Your task to perform on an android device: Open the Play Movies app and select the watchlist tab. Image 0: 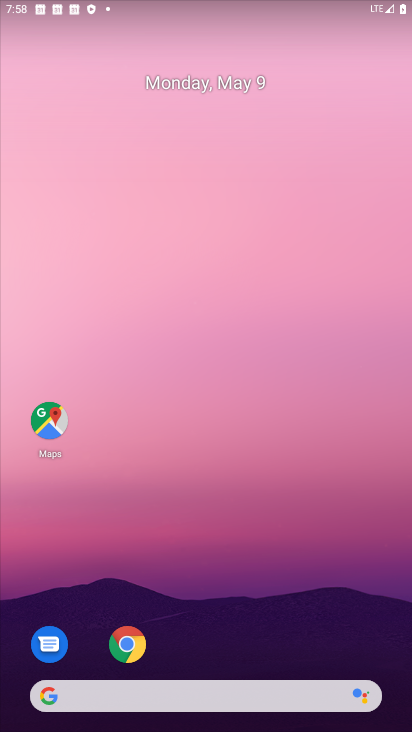
Step 0: drag from (178, 650) to (244, 271)
Your task to perform on an android device: Open the Play Movies app and select the watchlist tab. Image 1: 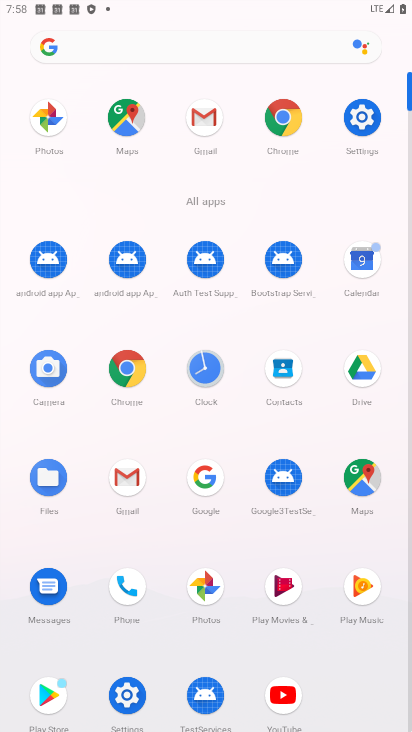
Step 1: drag from (244, 657) to (242, 380)
Your task to perform on an android device: Open the Play Movies app and select the watchlist tab. Image 2: 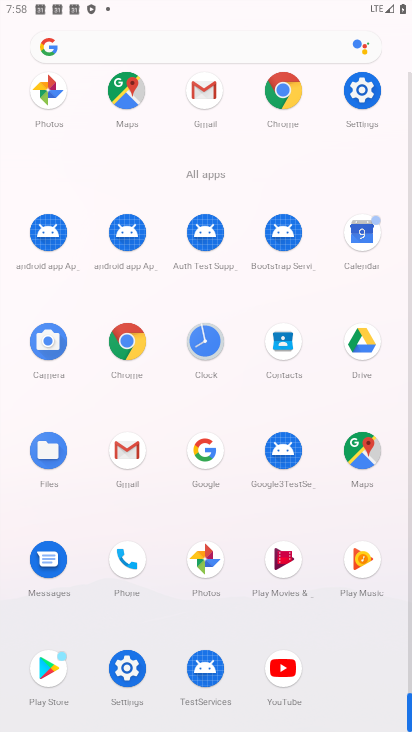
Step 2: click (274, 556)
Your task to perform on an android device: Open the Play Movies app and select the watchlist tab. Image 3: 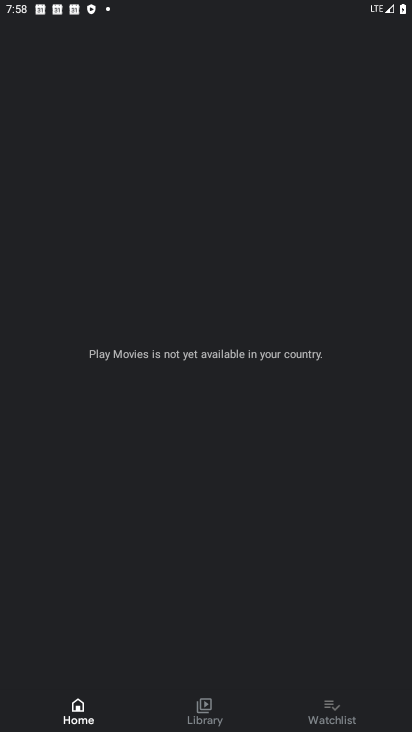
Step 3: click (331, 711)
Your task to perform on an android device: Open the Play Movies app and select the watchlist tab. Image 4: 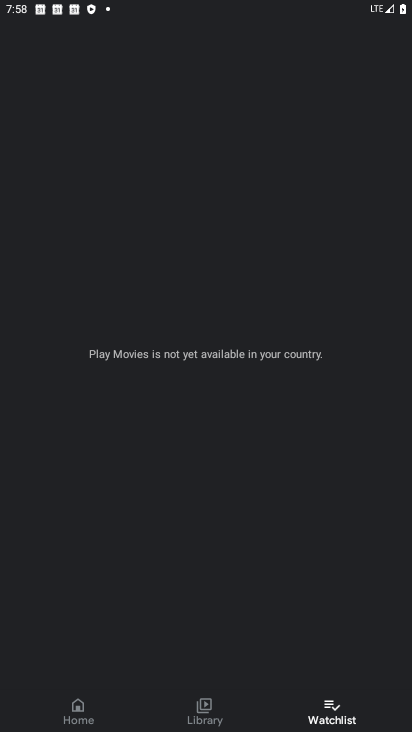
Step 4: task complete